Your task to perform on an android device: Show me productivity apps on the Play Store Image 0: 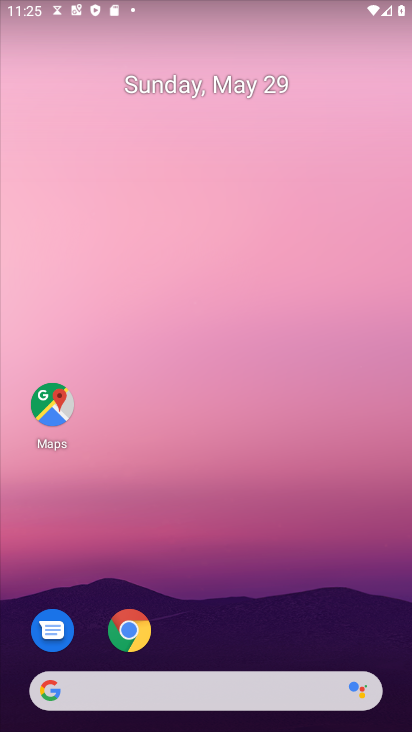
Step 0: drag from (214, 442) to (216, 0)
Your task to perform on an android device: Show me productivity apps on the Play Store Image 1: 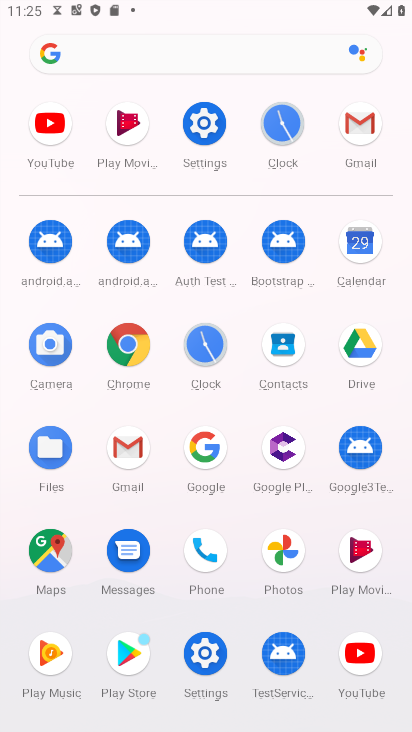
Step 1: click (132, 649)
Your task to perform on an android device: Show me productivity apps on the Play Store Image 2: 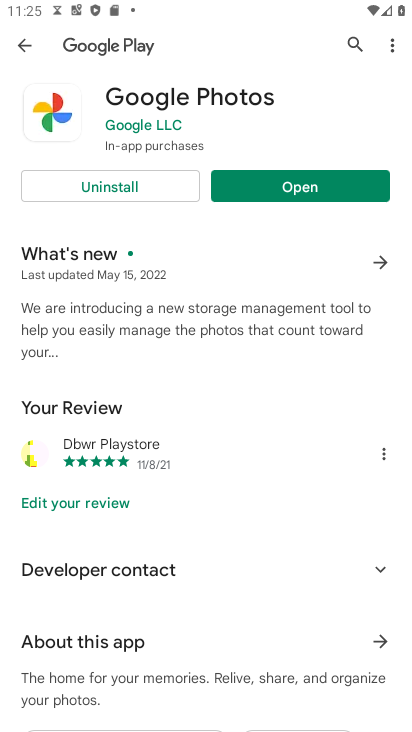
Step 2: press back button
Your task to perform on an android device: Show me productivity apps on the Play Store Image 3: 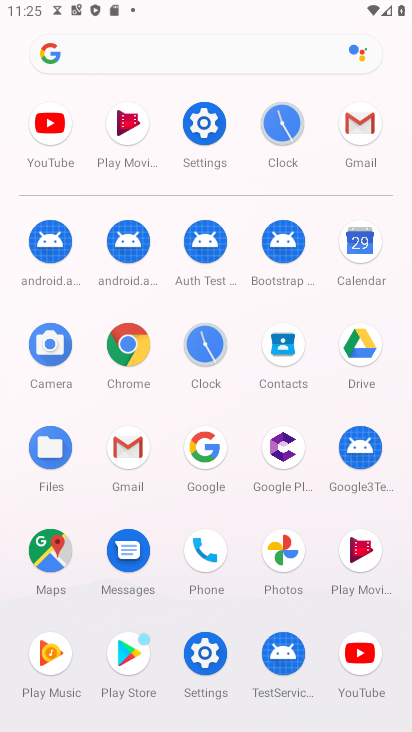
Step 3: click (130, 654)
Your task to perform on an android device: Show me productivity apps on the Play Store Image 4: 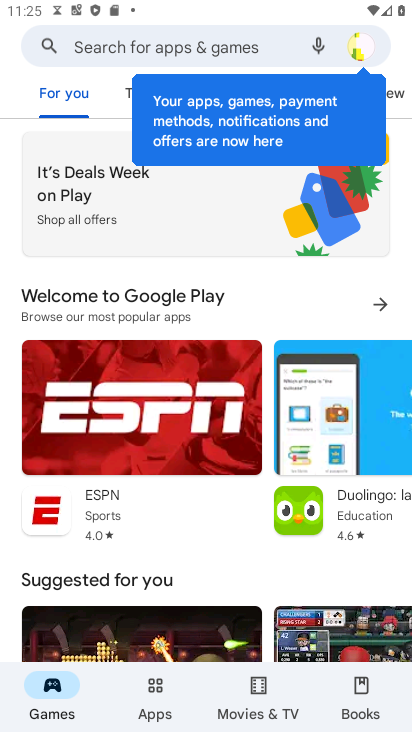
Step 4: click (125, 48)
Your task to perform on an android device: Show me productivity apps on the Play Store Image 5: 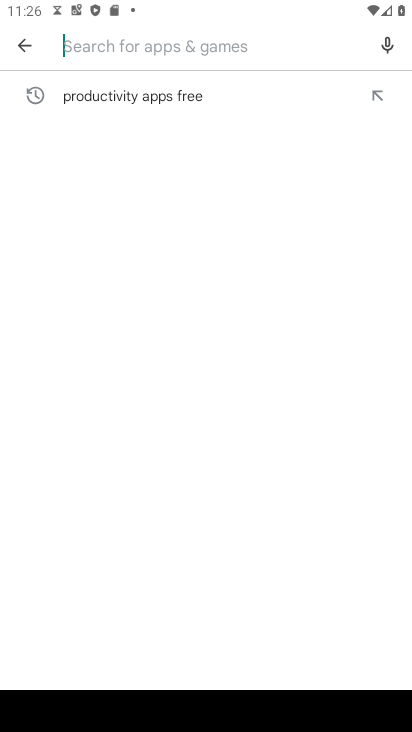
Step 5: type "productivity apps"
Your task to perform on an android device: Show me productivity apps on the Play Store Image 6: 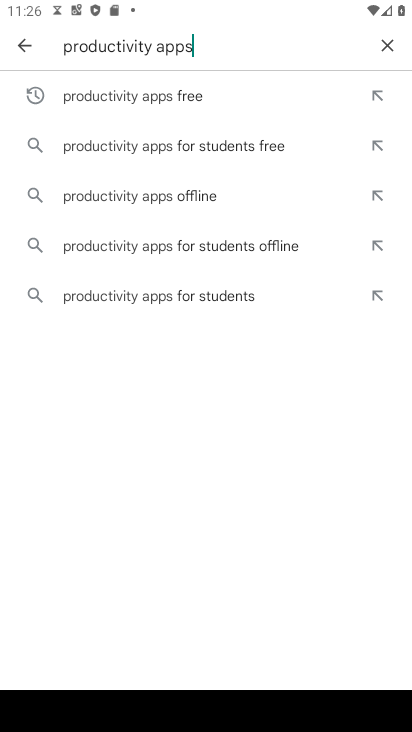
Step 6: click (156, 92)
Your task to perform on an android device: Show me productivity apps on the Play Store Image 7: 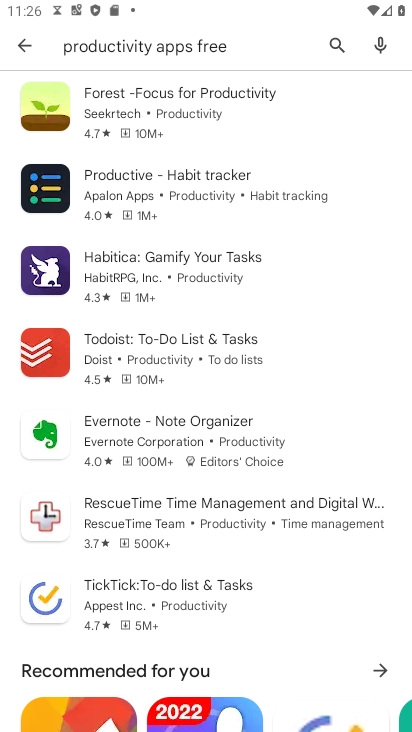
Step 7: task complete